Your task to perform on an android device: delete the emails in spam in the gmail app Image 0: 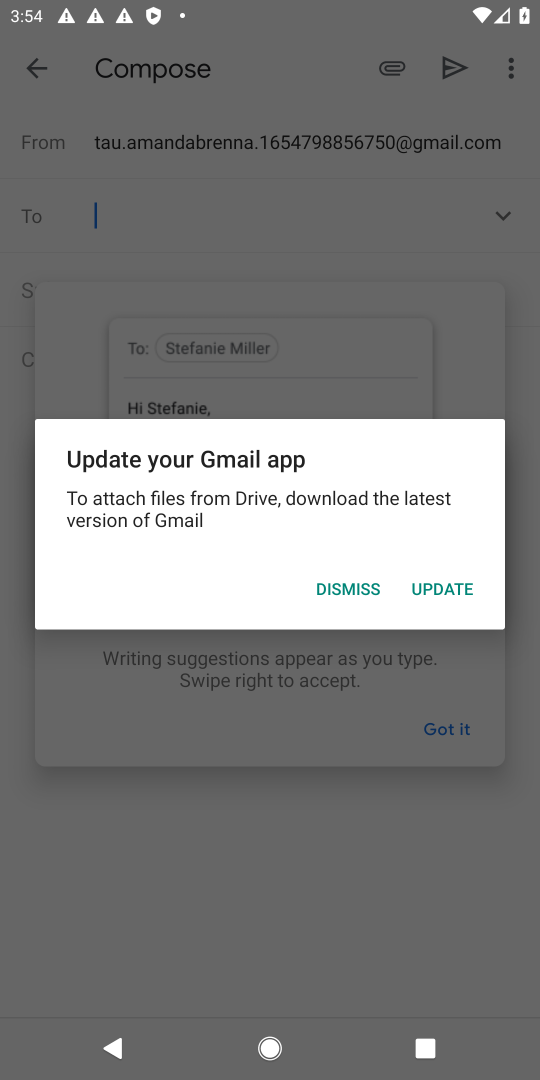
Step 0: press home button
Your task to perform on an android device: delete the emails in spam in the gmail app Image 1: 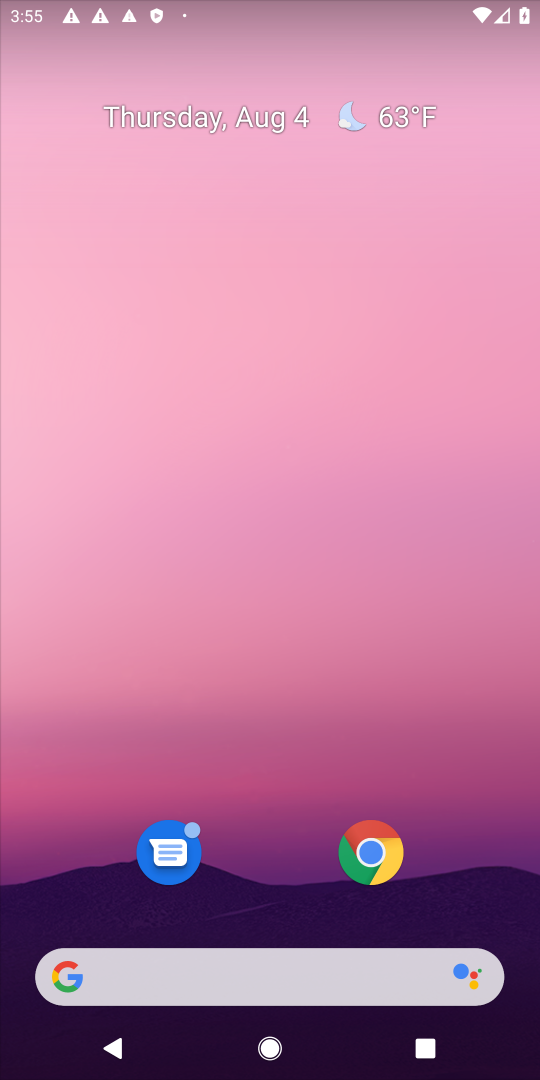
Step 1: drag from (267, 906) to (277, 100)
Your task to perform on an android device: delete the emails in spam in the gmail app Image 2: 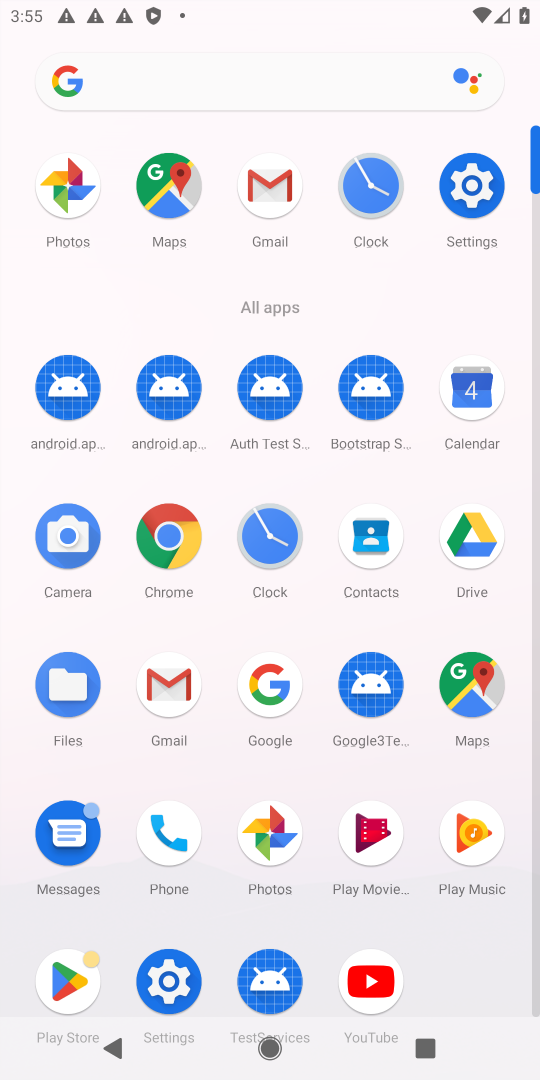
Step 2: click (176, 682)
Your task to perform on an android device: delete the emails in spam in the gmail app Image 3: 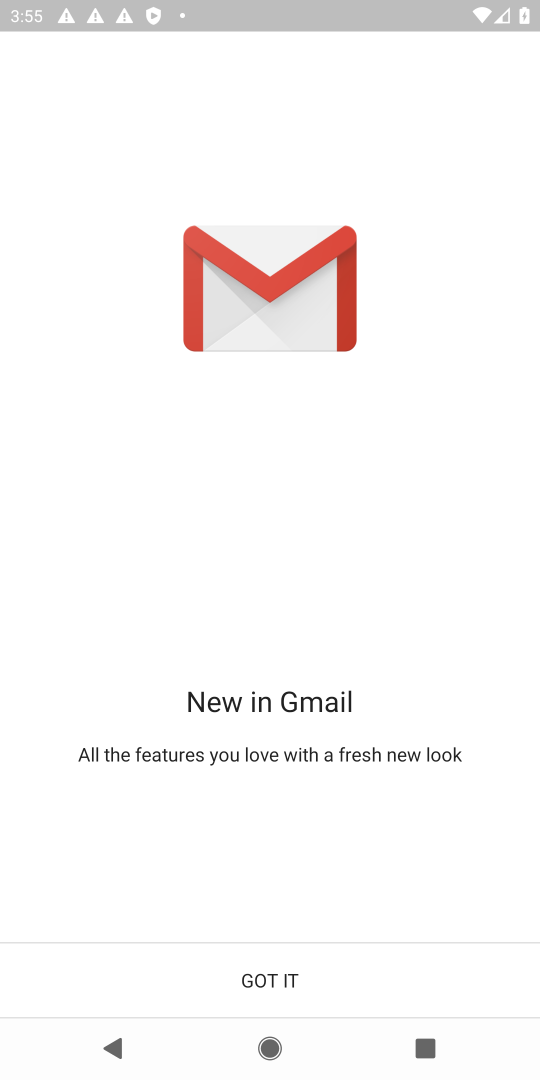
Step 3: click (273, 973)
Your task to perform on an android device: delete the emails in spam in the gmail app Image 4: 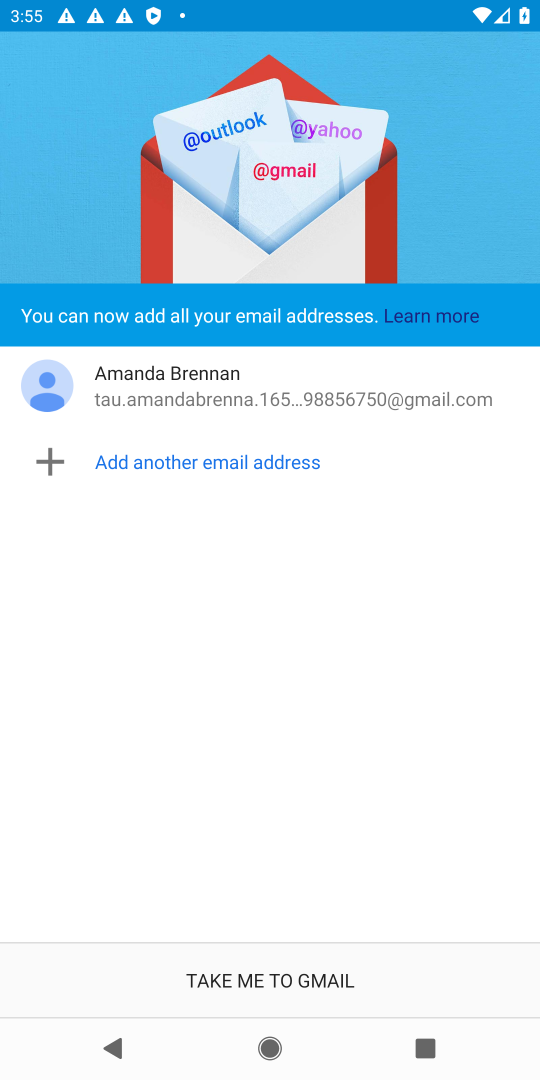
Step 4: click (273, 974)
Your task to perform on an android device: delete the emails in spam in the gmail app Image 5: 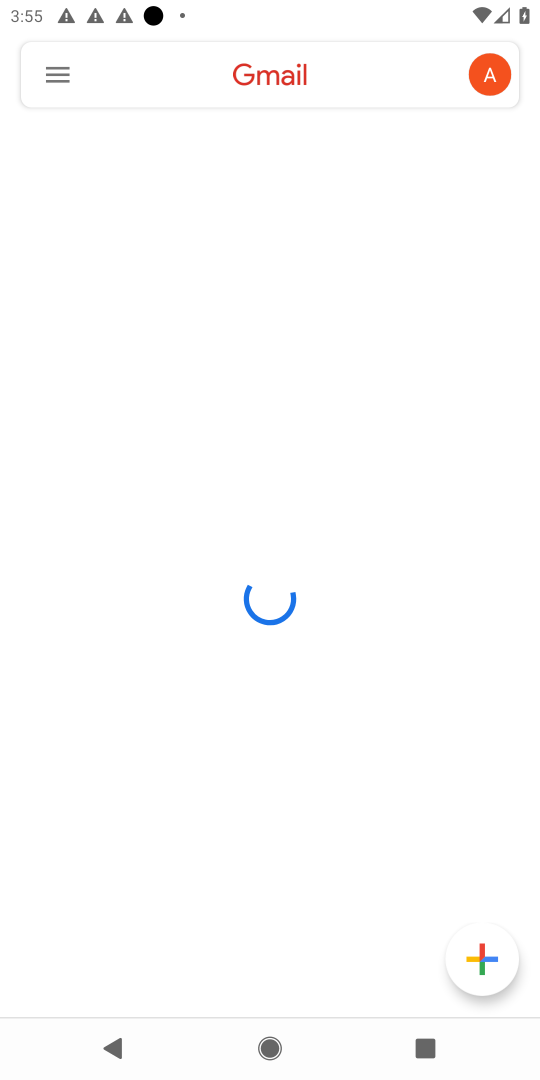
Step 5: click (56, 79)
Your task to perform on an android device: delete the emails in spam in the gmail app Image 6: 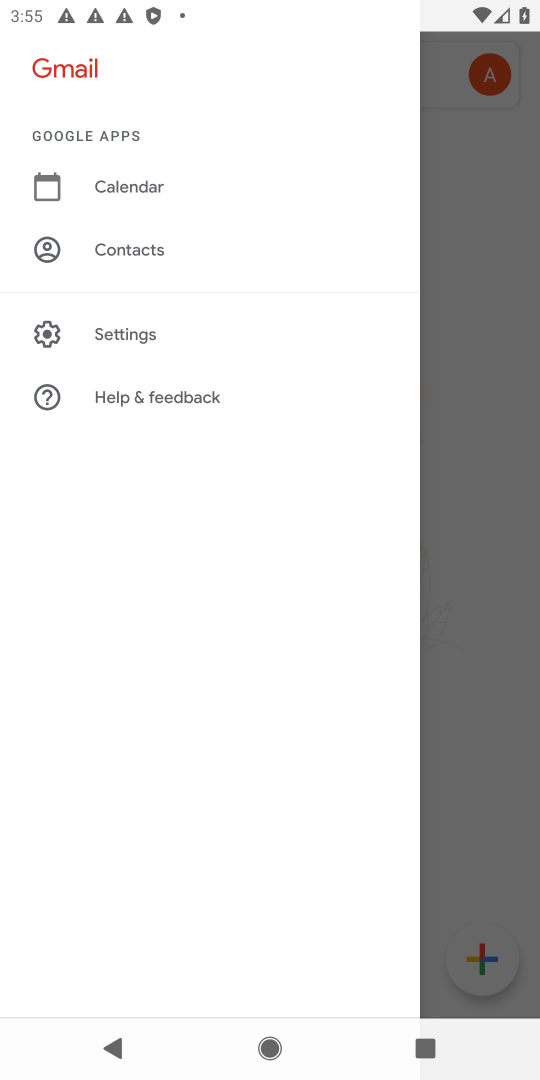
Step 6: click (139, 332)
Your task to perform on an android device: delete the emails in spam in the gmail app Image 7: 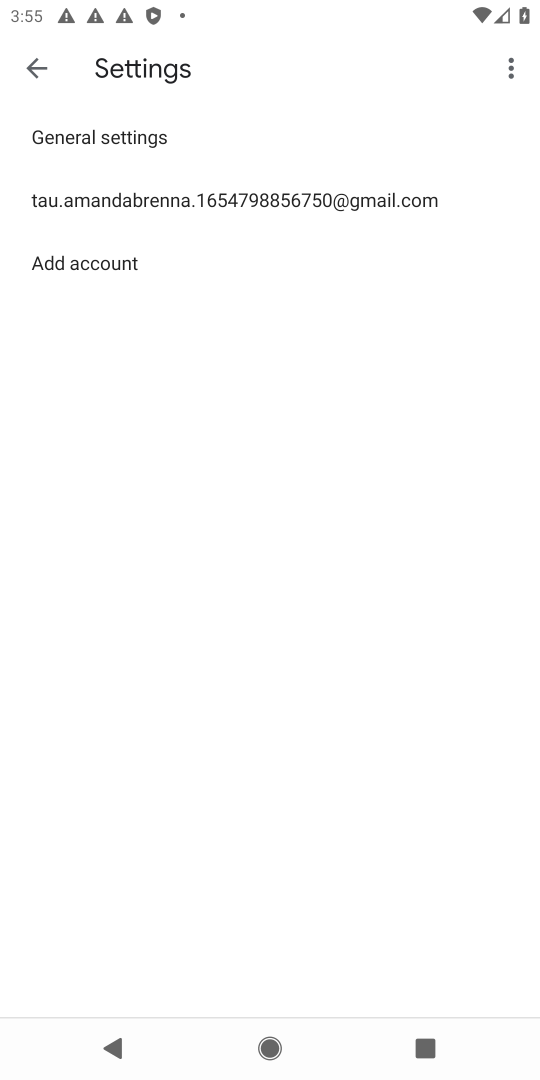
Step 7: click (32, 65)
Your task to perform on an android device: delete the emails in spam in the gmail app Image 8: 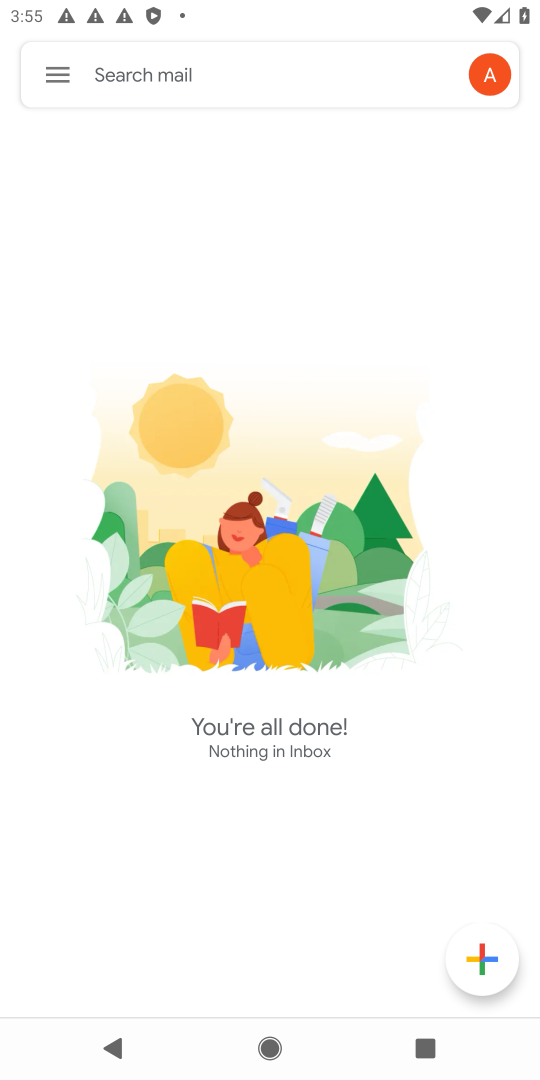
Step 8: click (52, 77)
Your task to perform on an android device: delete the emails in spam in the gmail app Image 9: 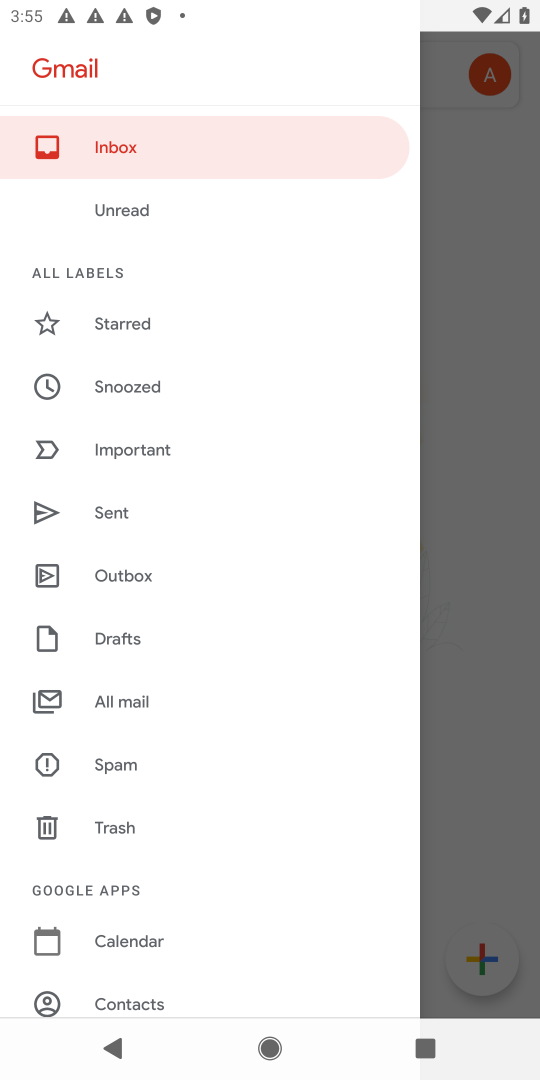
Step 9: click (118, 757)
Your task to perform on an android device: delete the emails in spam in the gmail app Image 10: 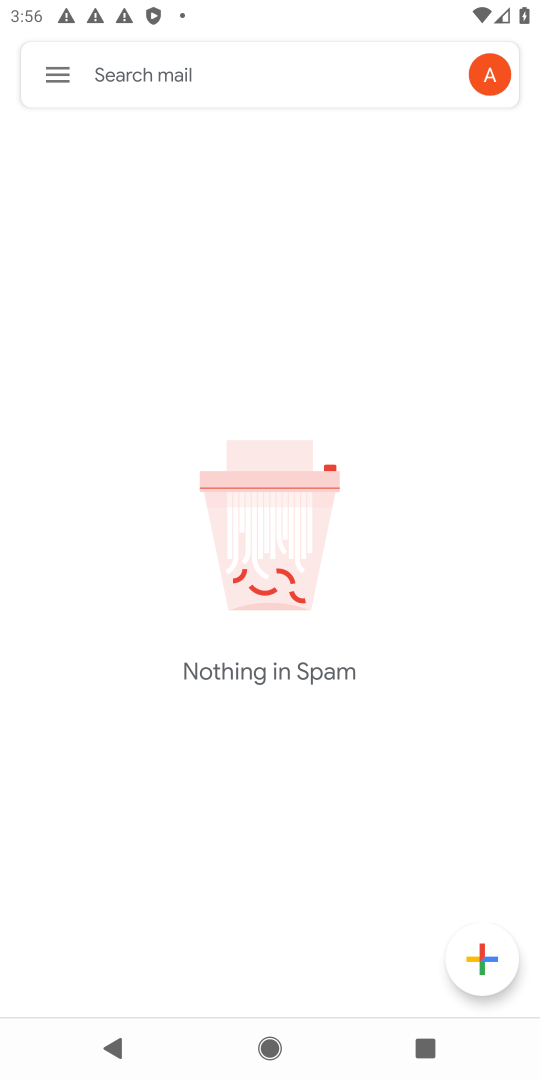
Step 10: task complete